Your task to perform on an android device: turn off wifi Image 0: 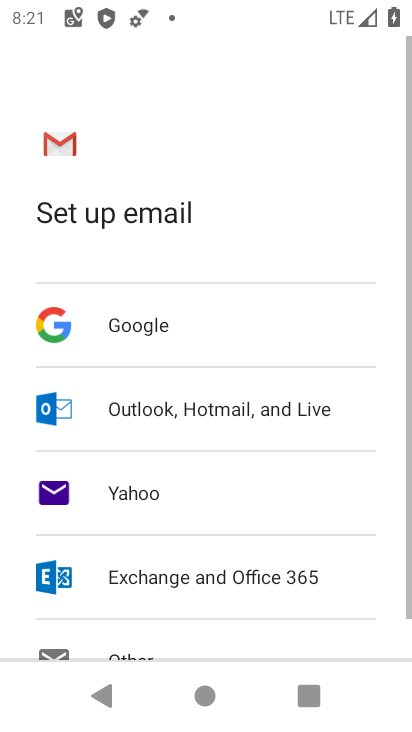
Step 0: press home button
Your task to perform on an android device: turn off wifi Image 1: 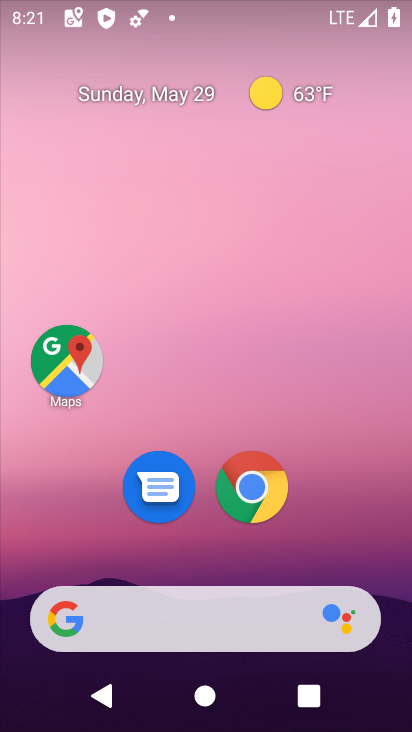
Step 1: drag from (203, 601) to (266, 77)
Your task to perform on an android device: turn off wifi Image 2: 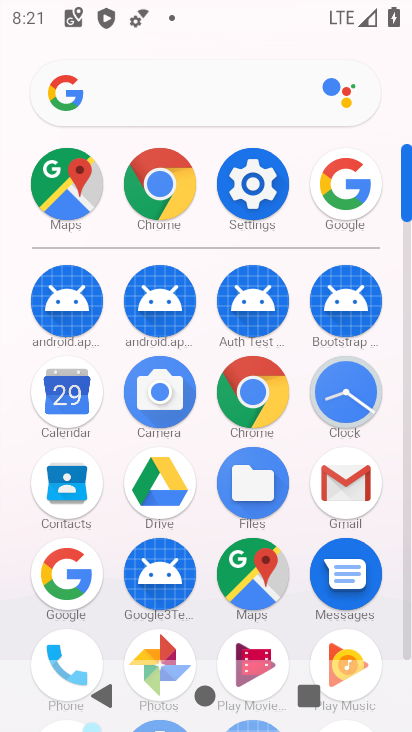
Step 2: click (273, 201)
Your task to perform on an android device: turn off wifi Image 3: 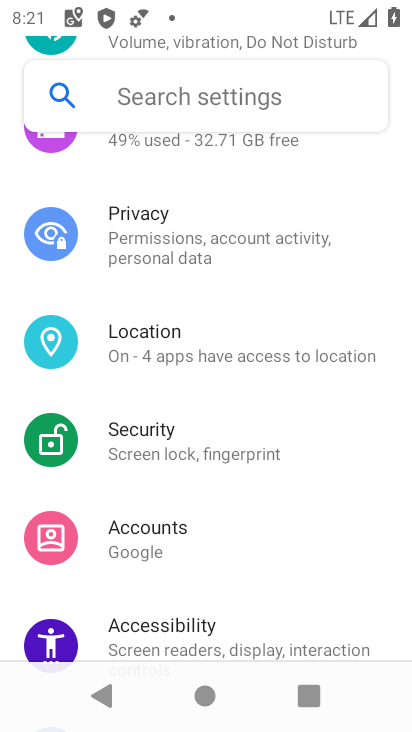
Step 3: drag from (245, 336) to (261, 731)
Your task to perform on an android device: turn off wifi Image 4: 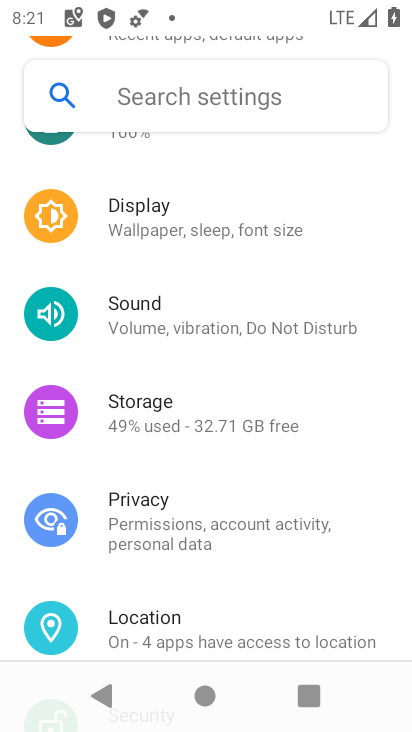
Step 4: drag from (248, 322) to (219, 725)
Your task to perform on an android device: turn off wifi Image 5: 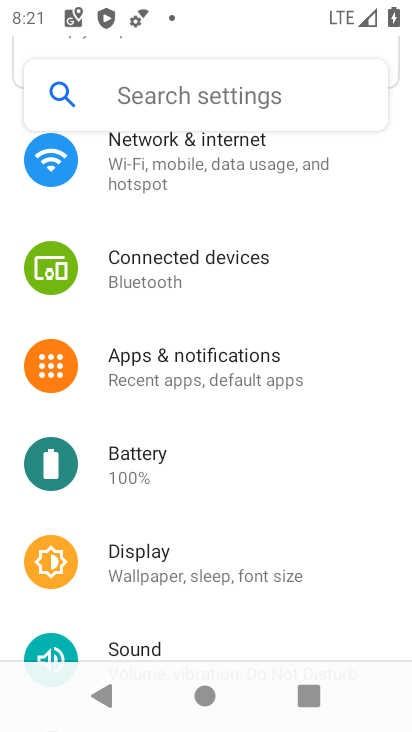
Step 5: drag from (273, 312) to (211, 653)
Your task to perform on an android device: turn off wifi Image 6: 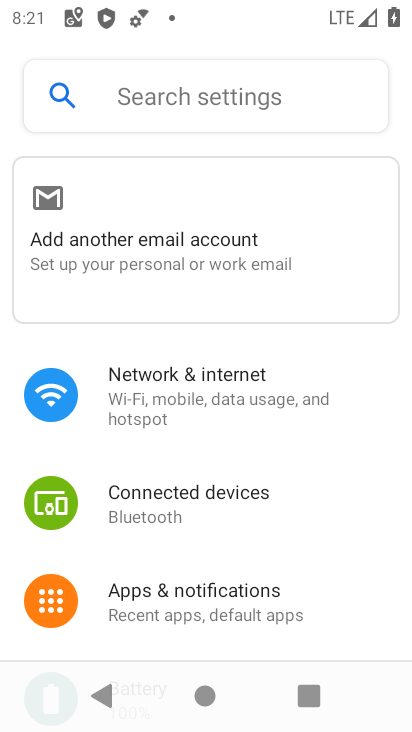
Step 6: click (235, 393)
Your task to perform on an android device: turn off wifi Image 7: 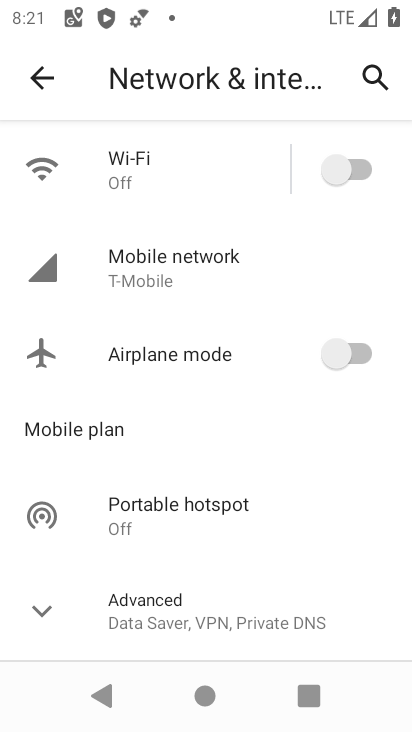
Step 7: task complete